Your task to perform on an android device: What's the weather going to be tomorrow? Image 0: 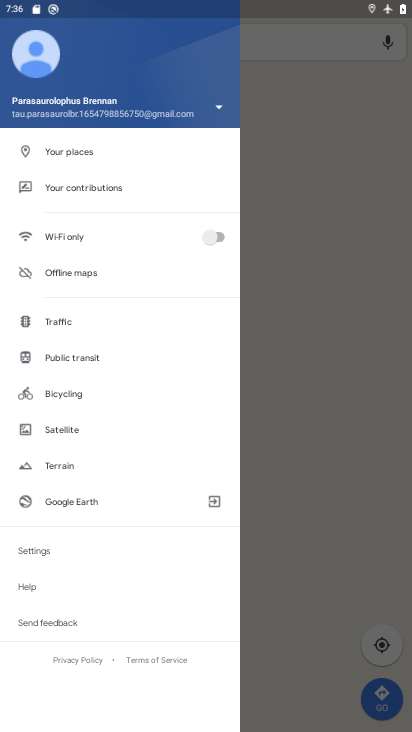
Step 0: press home button
Your task to perform on an android device: What's the weather going to be tomorrow? Image 1: 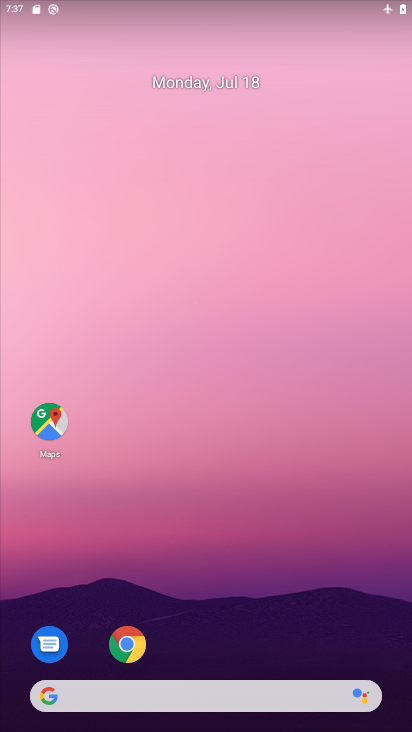
Step 1: click (193, 696)
Your task to perform on an android device: What's the weather going to be tomorrow? Image 2: 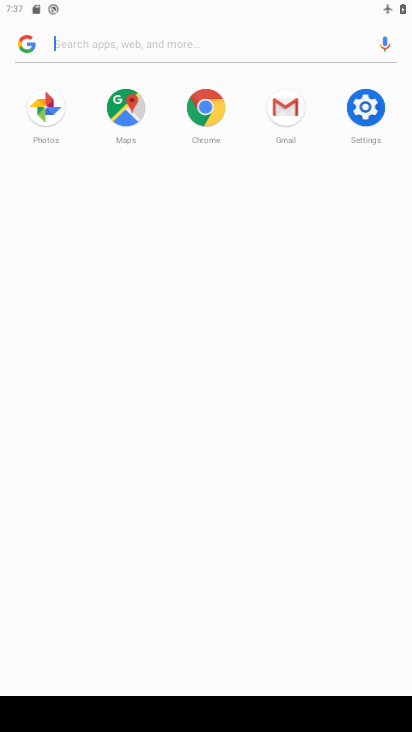
Step 2: type "weather"
Your task to perform on an android device: What's the weather going to be tomorrow? Image 3: 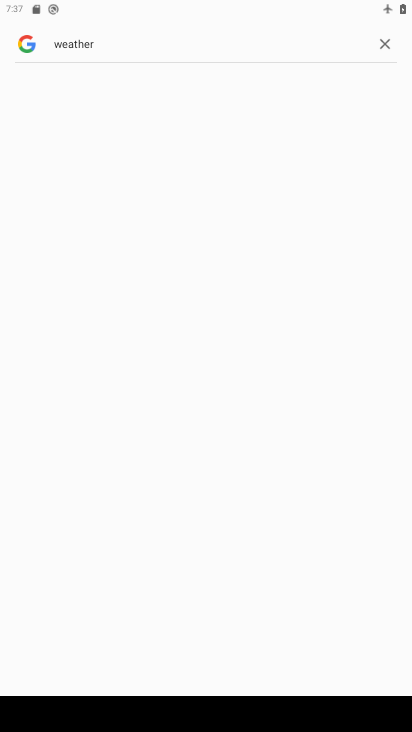
Step 3: task complete